Your task to perform on an android device: Open location settings Image 0: 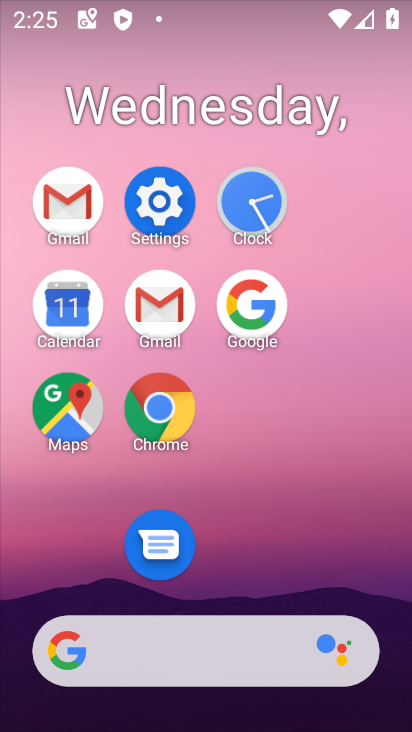
Step 0: click (153, 193)
Your task to perform on an android device: Open location settings Image 1: 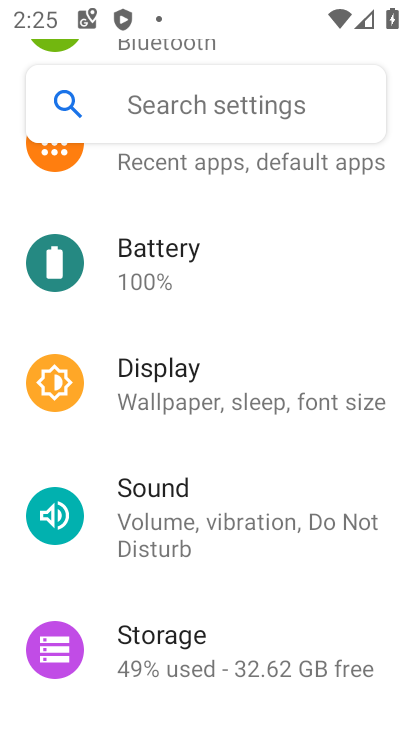
Step 1: drag from (236, 631) to (246, 171)
Your task to perform on an android device: Open location settings Image 2: 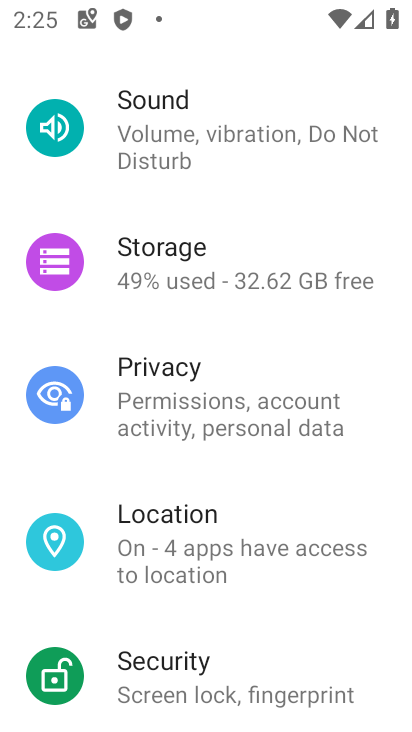
Step 2: click (197, 518)
Your task to perform on an android device: Open location settings Image 3: 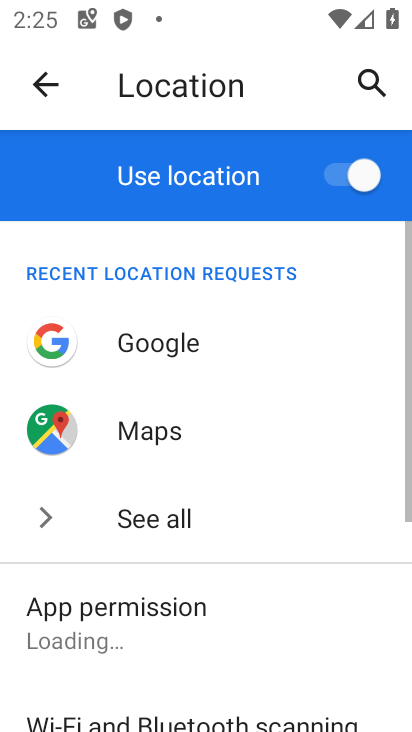
Step 3: task complete